Your task to perform on an android device: toggle improve location accuracy Image 0: 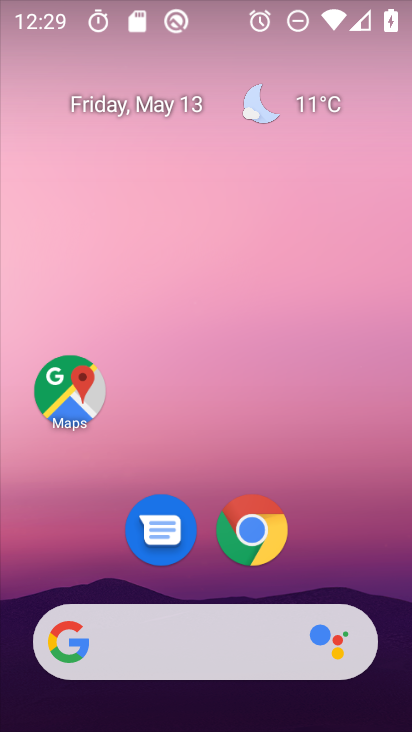
Step 0: drag from (143, 650) to (240, 147)
Your task to perform on an android device: toggle improve location accuracy Image 1: 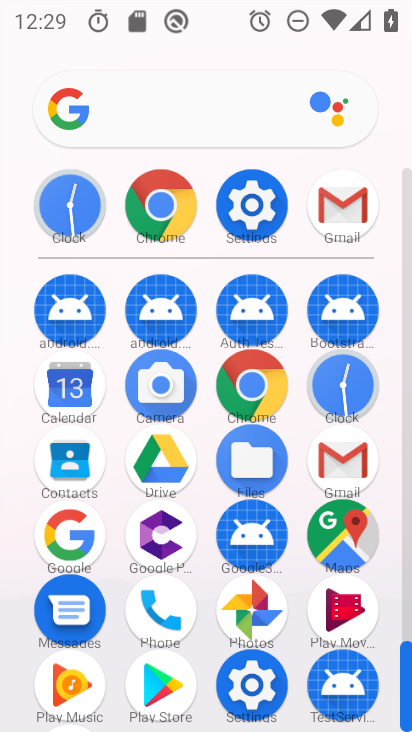
Step 1: click (241, 217)
Your task to perform on an android device: toggle improve location accuracy Image 2: 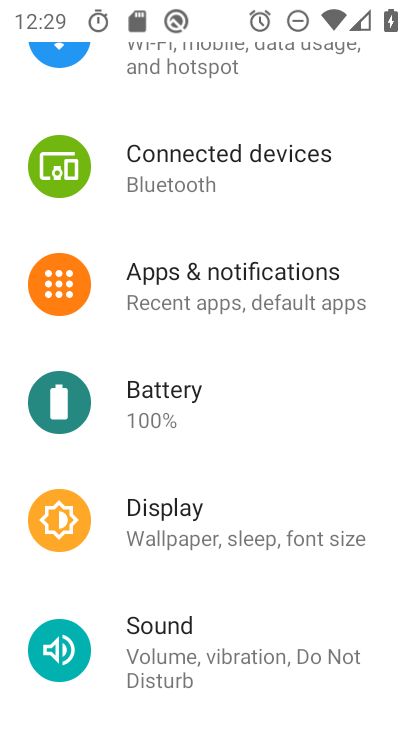
Step 2: drag from (229, 614) to (333, 94)
Your task to perform on an android device: toggle improve location accuracy Image 3: 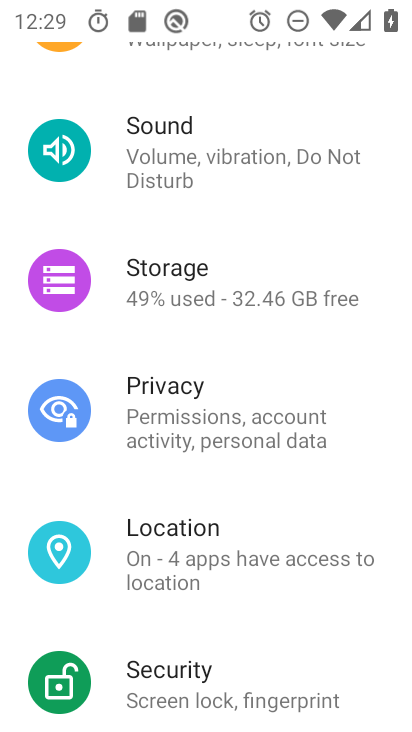
Step 3: click (188, 541)
Your task to perform on an android device: toggle improve location accuracy Image 4: 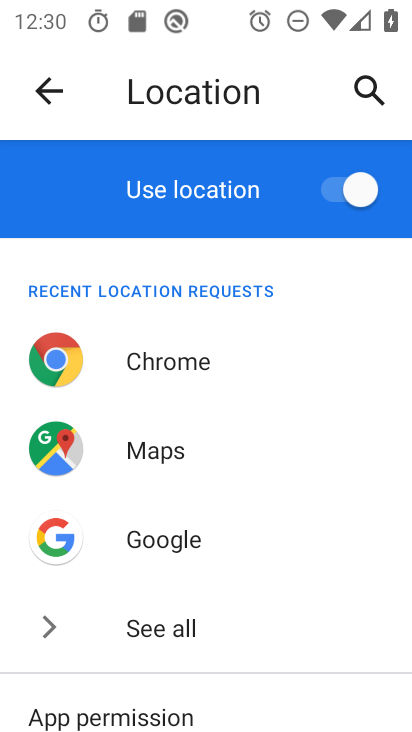
Step 4: task complete